Your task to perform on an android device: Open the web browser Image 0: 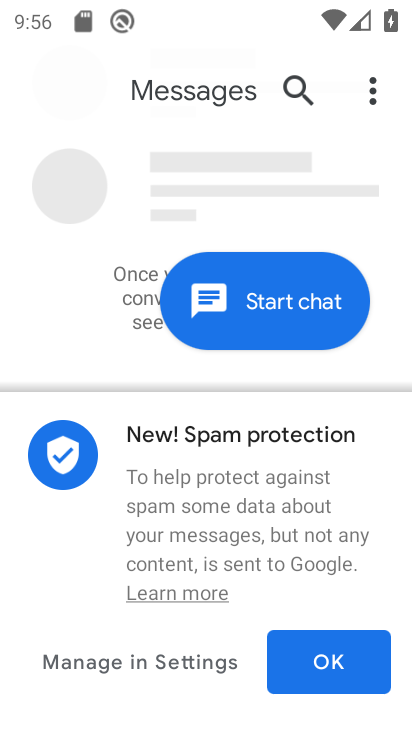
Step 0: press home button
Your task to perform on an android device: Open the web browser Image 1: 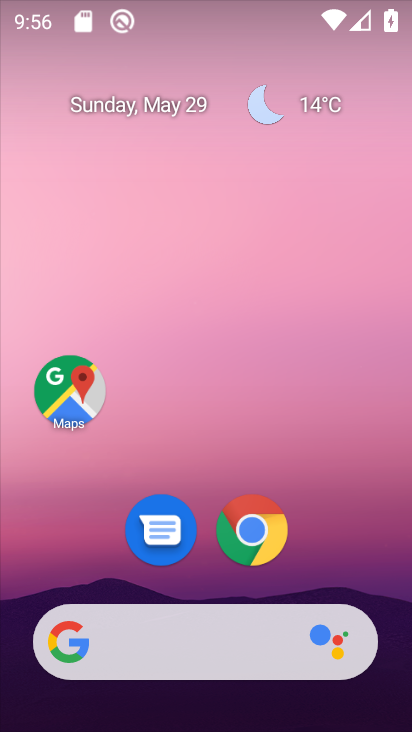
Step 1: click (261, 537)
Your task to perform on an android device: Open the web browser Image 2: 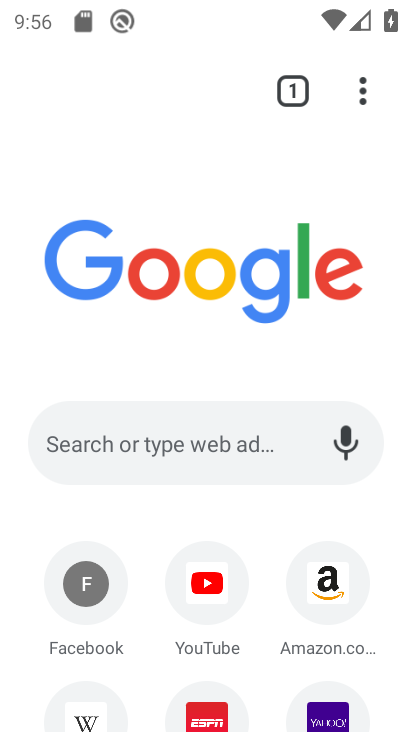
Step 2: task complete